Your task to perform on an android device: open a new tab in the chrome app Image 0: 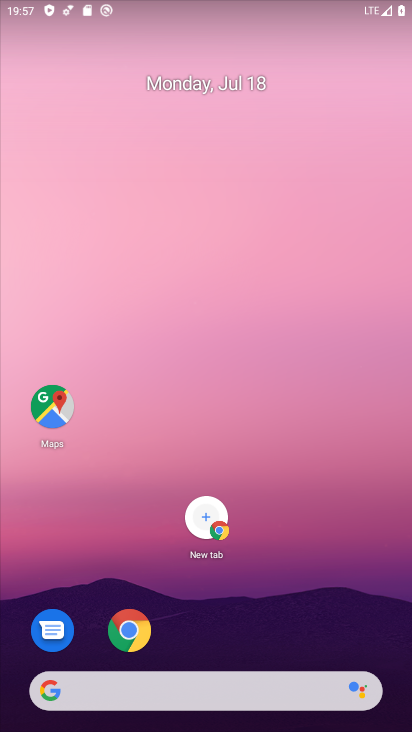
Step 0: click (124, 624)
Your task to perform on an android device: open a new tab in the chrome app Image 1: 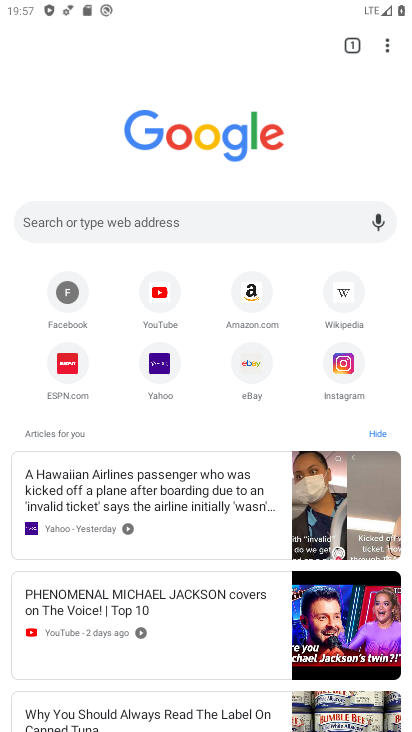
Step 1: click (388, 30)
Your task to perform on an android device: open a new tab in the chrome app Image 2: 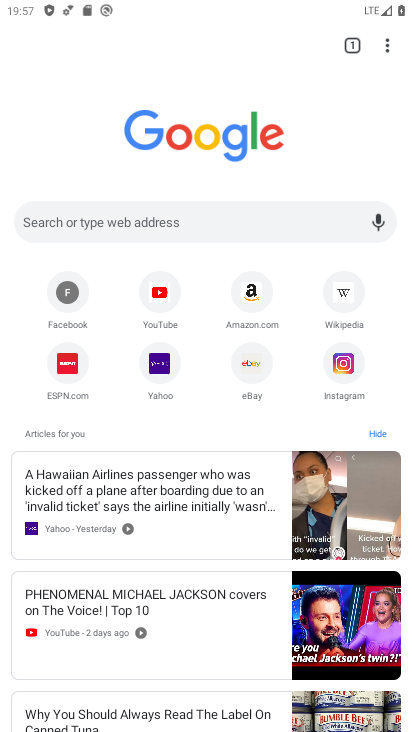
Step 2: click (382, 49)
Your task to perform on an android device: open a new tab in the chrome app Image 3: 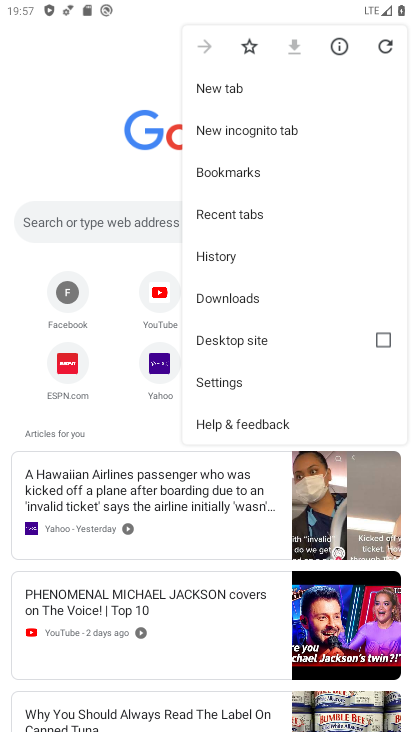
Step 3: click (273, 77)
Your task to perform on an android device: open a new tab in the chrome app Image 4: 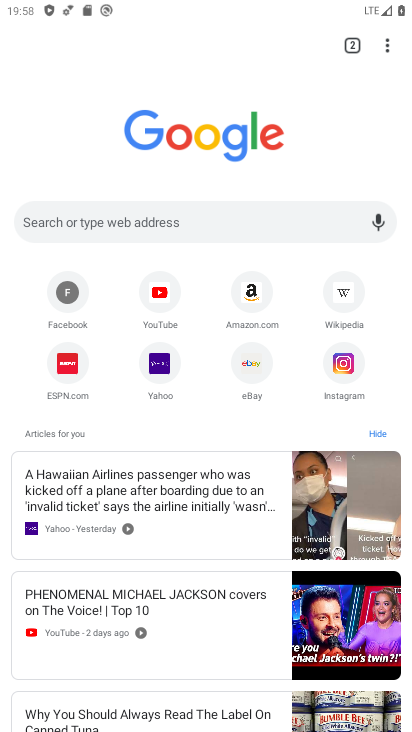
Step 4: task complete